Your task to perform on an android device: open app "Facebook" (install if not already installed) Image 0: 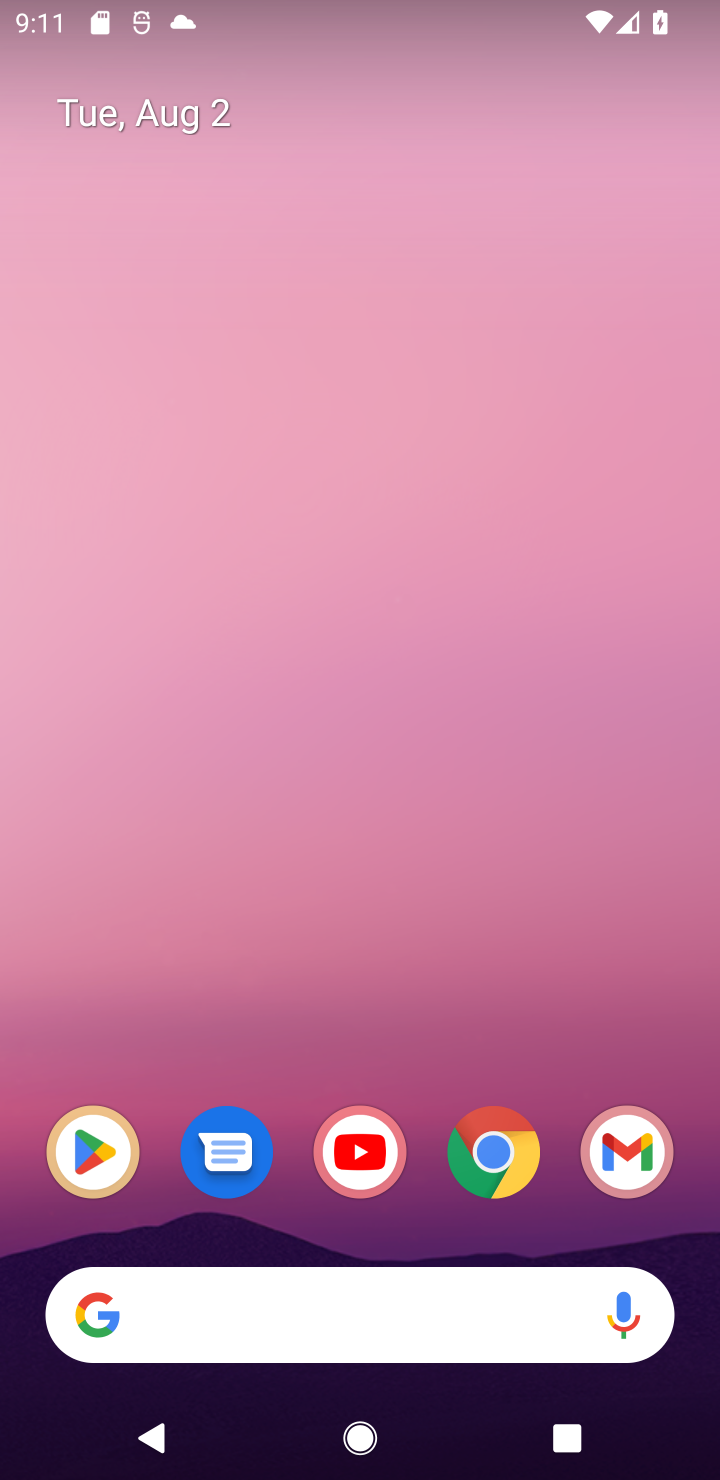
Step 0: drag from (286, 1062) to (238, 141)
Your task to perform on an android device: open app "Facebook" (install if not already installed) Image 1: 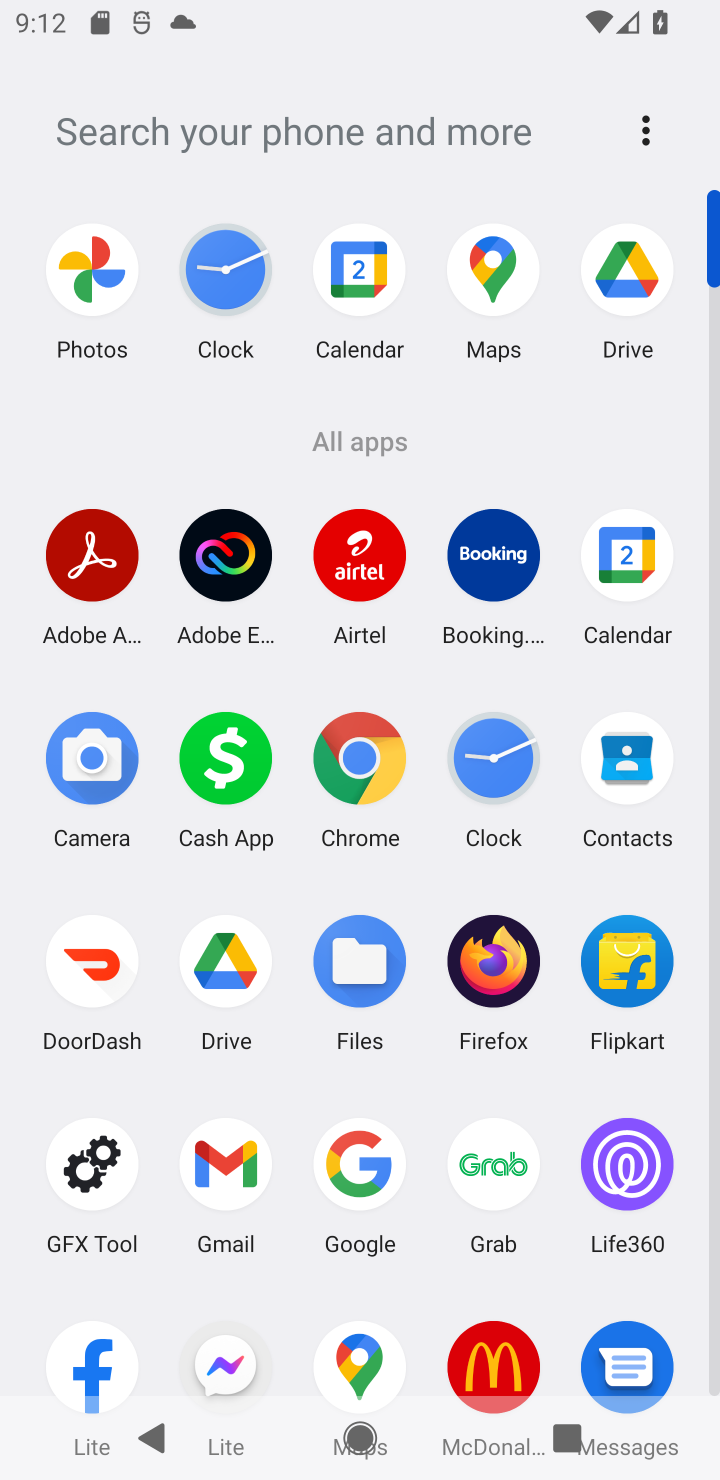
Step 1: drag from (304, 1114) to (315, 576)
Your task to perform on an android device: open app "Facebook" (install if not already installed) Image 2: 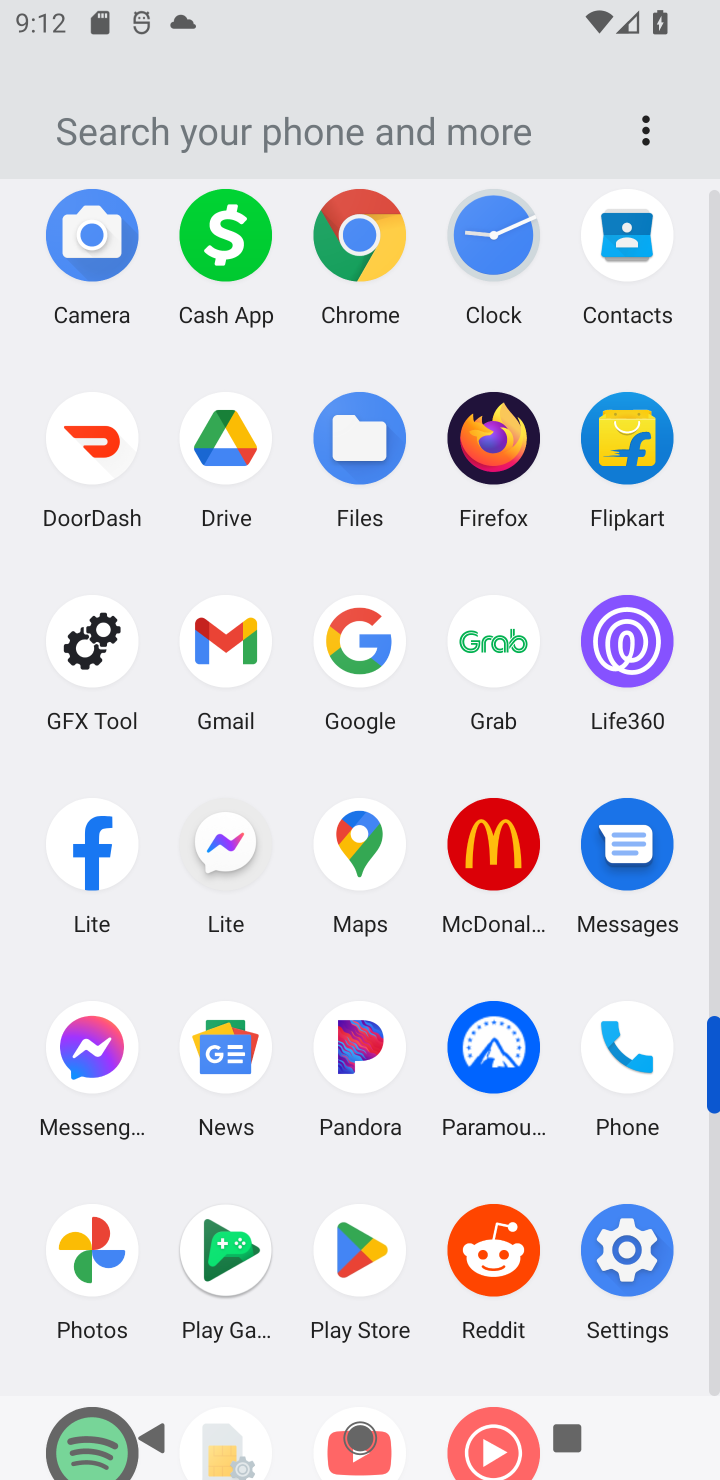
Step 2: click (354, 1282)
Your task to perform on an android device: open app "Facebook" (install if not already installed) Image 3: 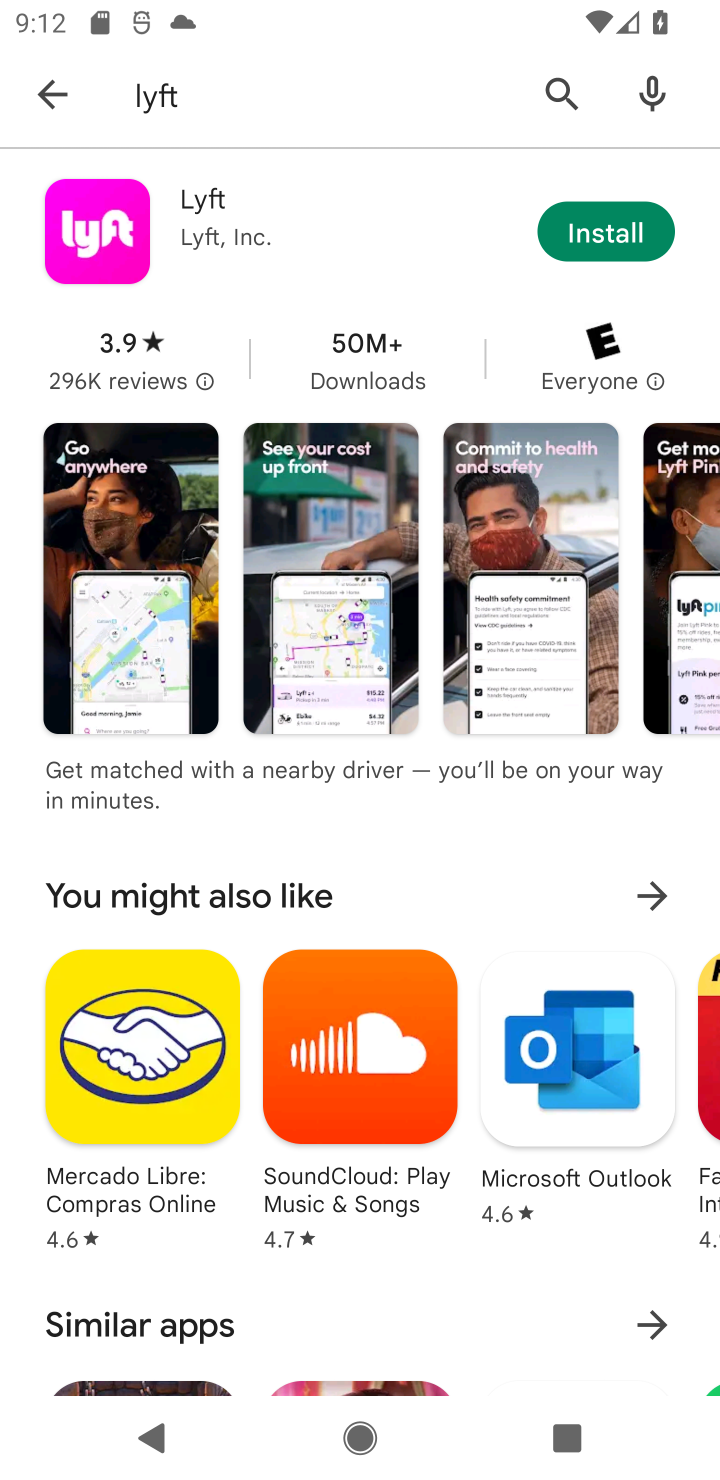
Step 3: click (47, 100)
Your task to perform on an android device: open app "Facebook" (install if not already installed) Image 4: 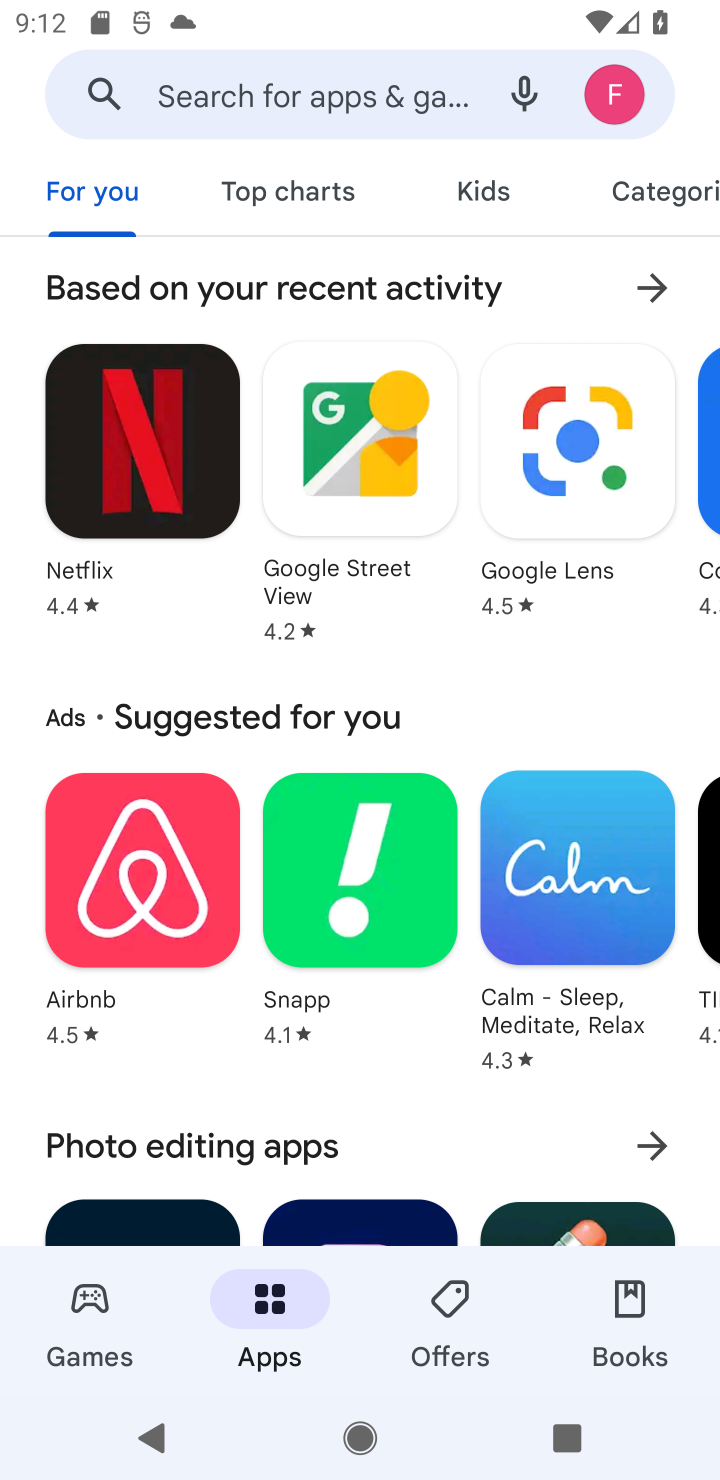
Step 4: click (302, 97)
Your task to perform on an android device: open app "Facebook" (install if not already installed) Image 5: 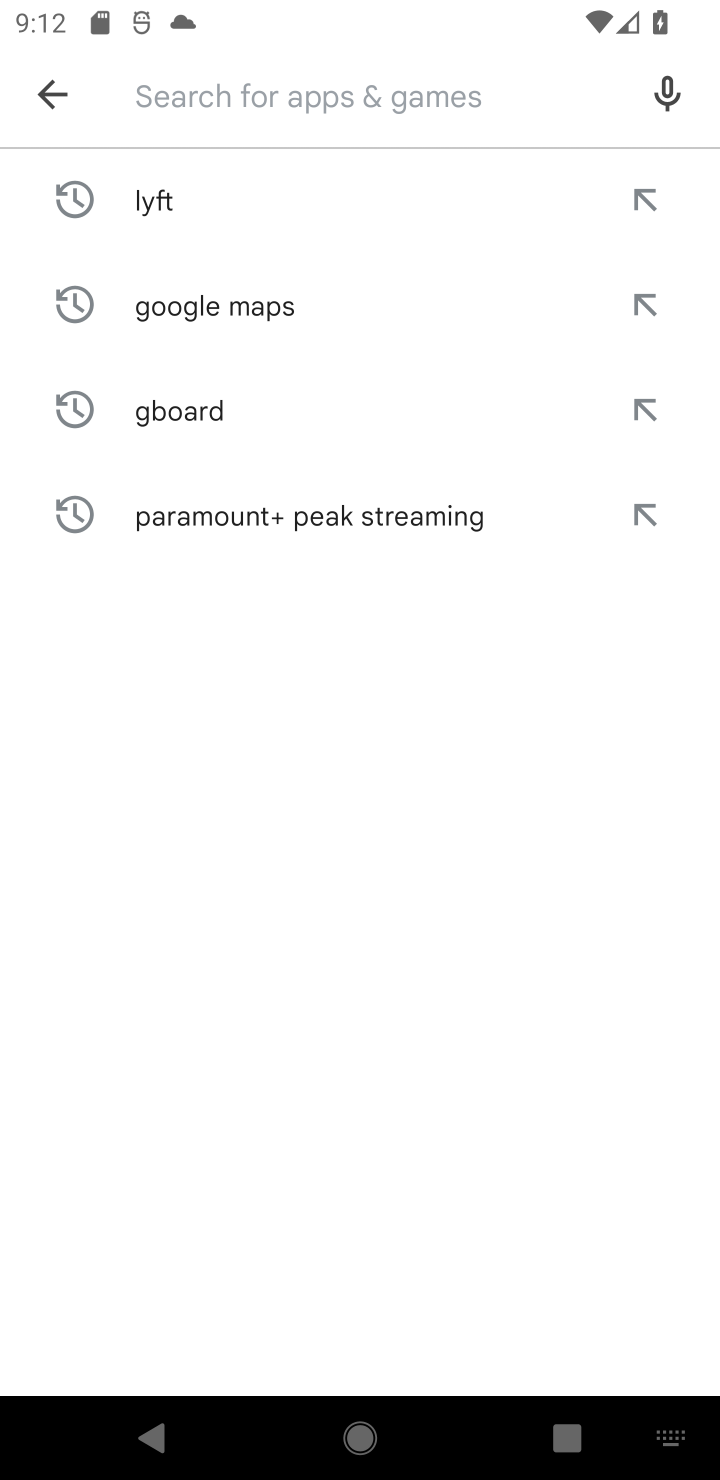
Step 5: type "Facebook"
Your task to perform on an android device: open app "Facebook" (install if not already installed) Image 6: 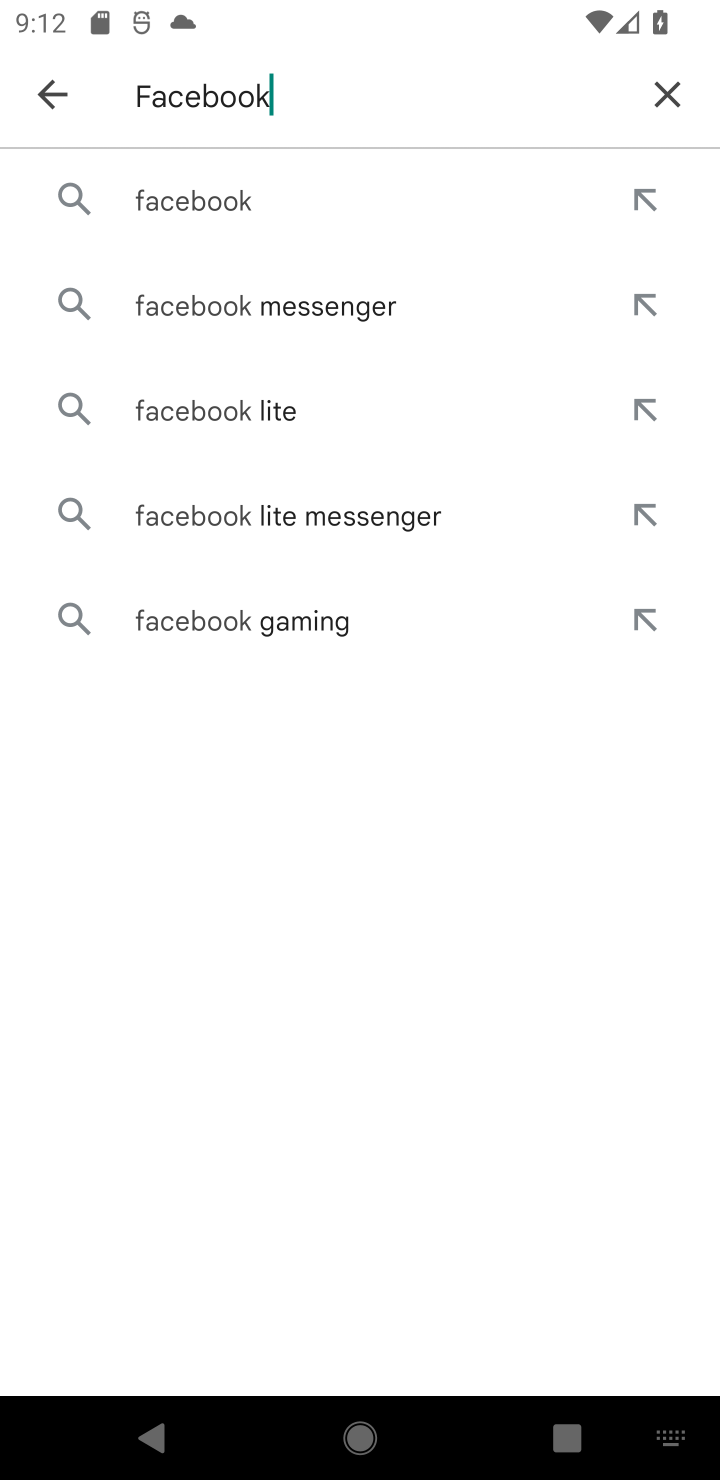
Step 6: click (166, 178)
Your task to perform on an android device: open app "Facebook" (install if not already installed) Image 7: 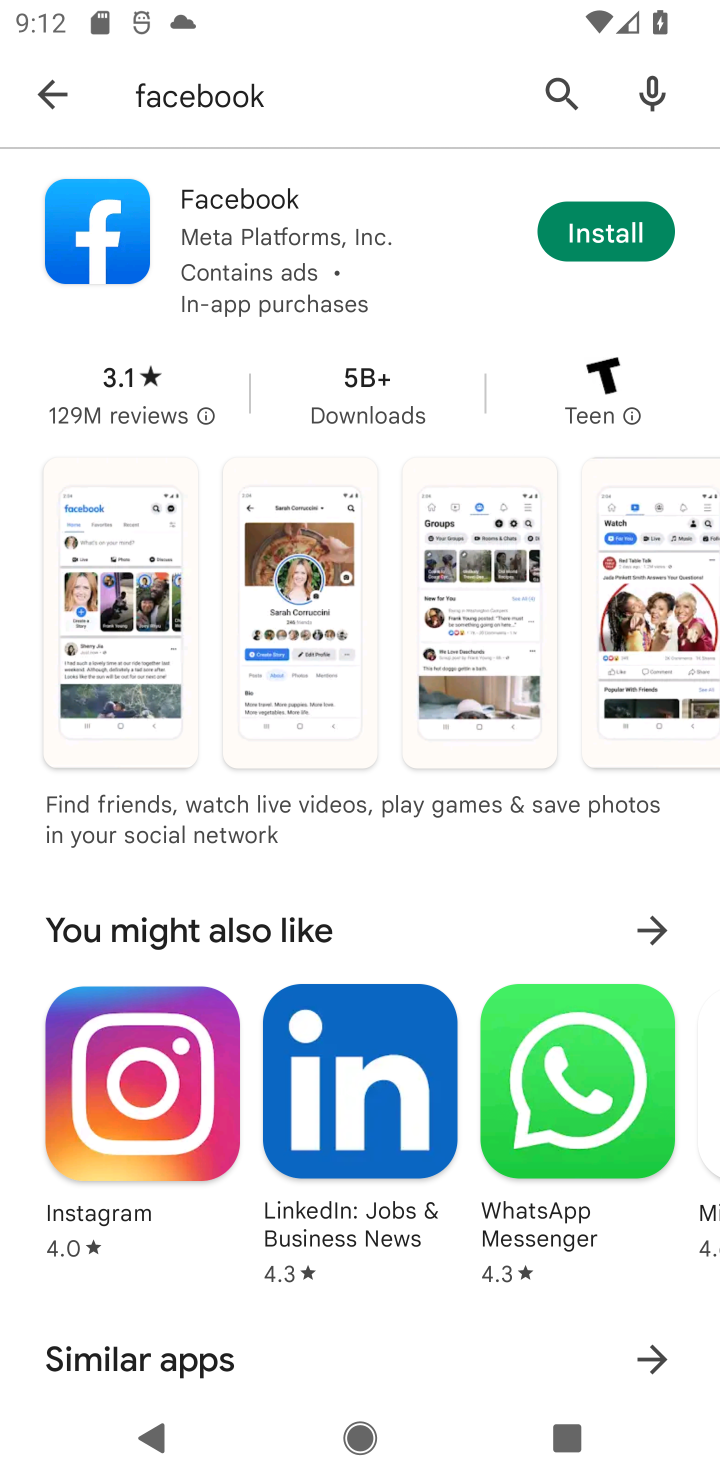
Step 7: click (618, 245)
Your task to perform on an android device: open app "Facebook" (install if not already installed) Image 8: 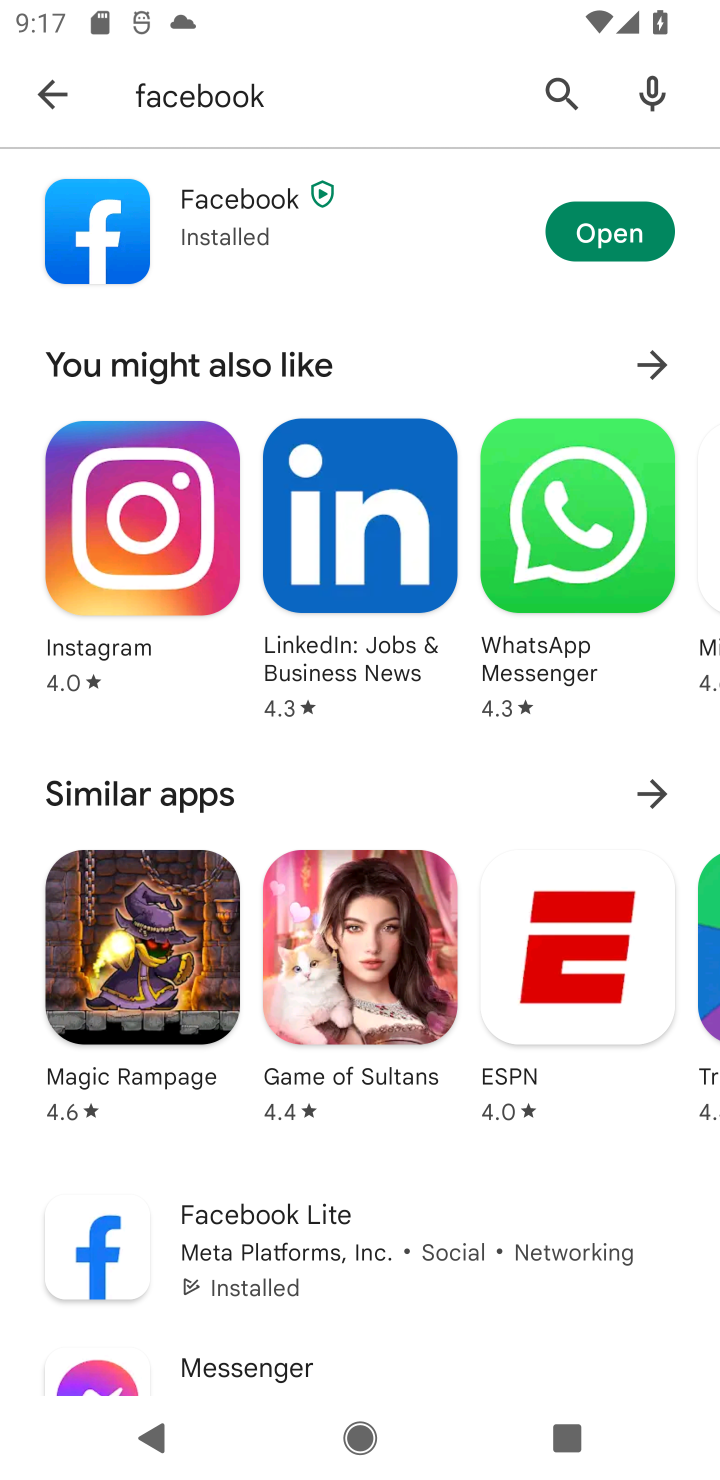
Step 8: click (618, 245)
Your task to perform on an android device: open app "Facebook" (install if not already installed) Image 9: 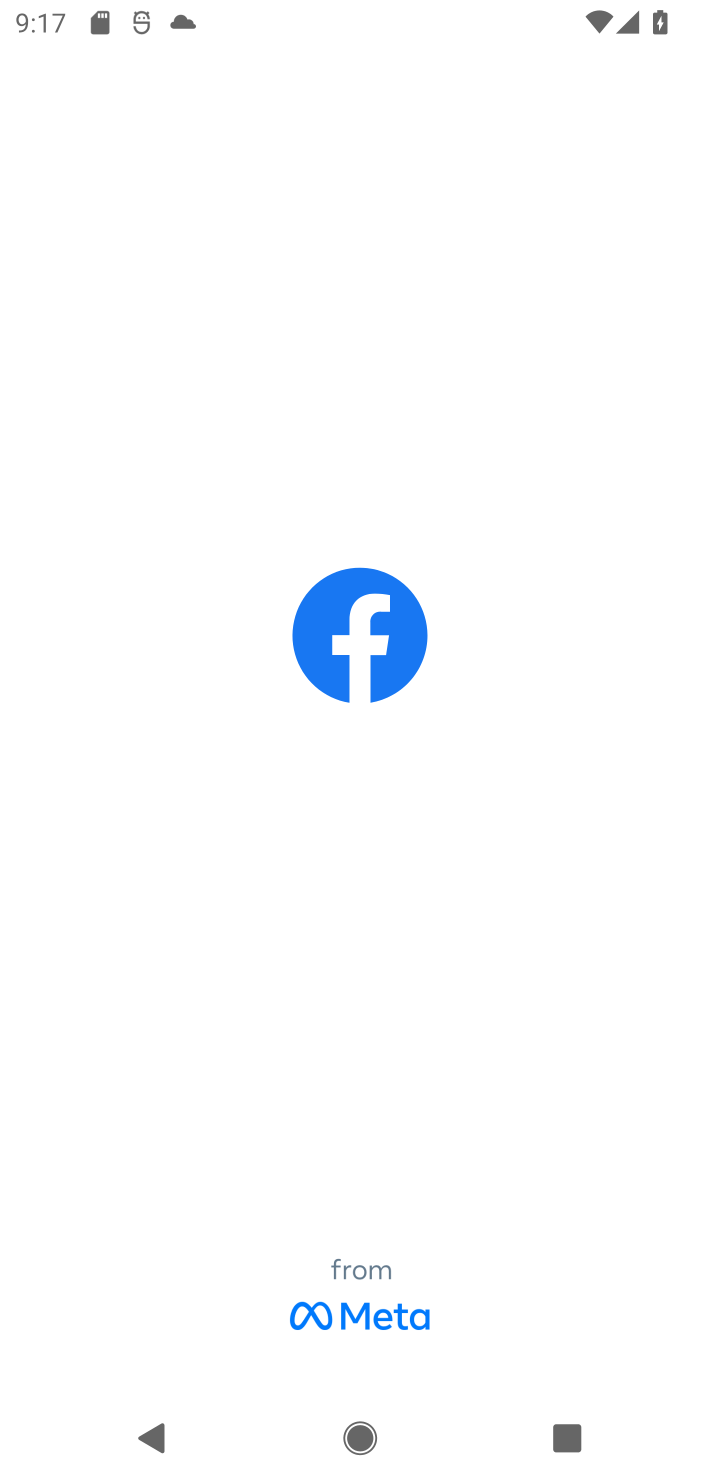
Step 9: task complete